Your task to perform on an android device: clear all cookies in the chrome app Image 0: 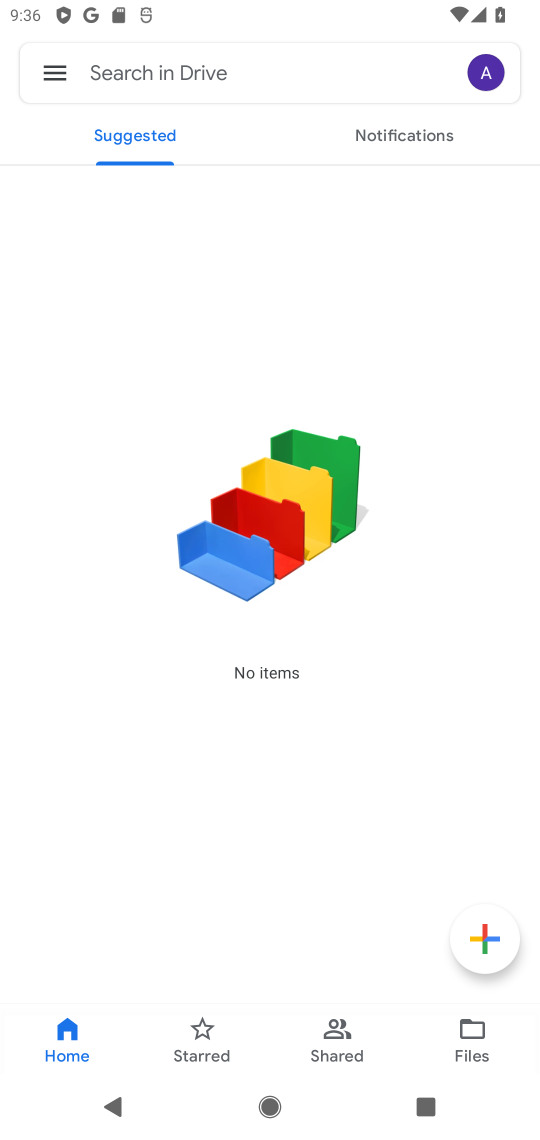
Step 0: press home button
Your task to perform on an android device: clear all cookies in the chrome app Image 1: 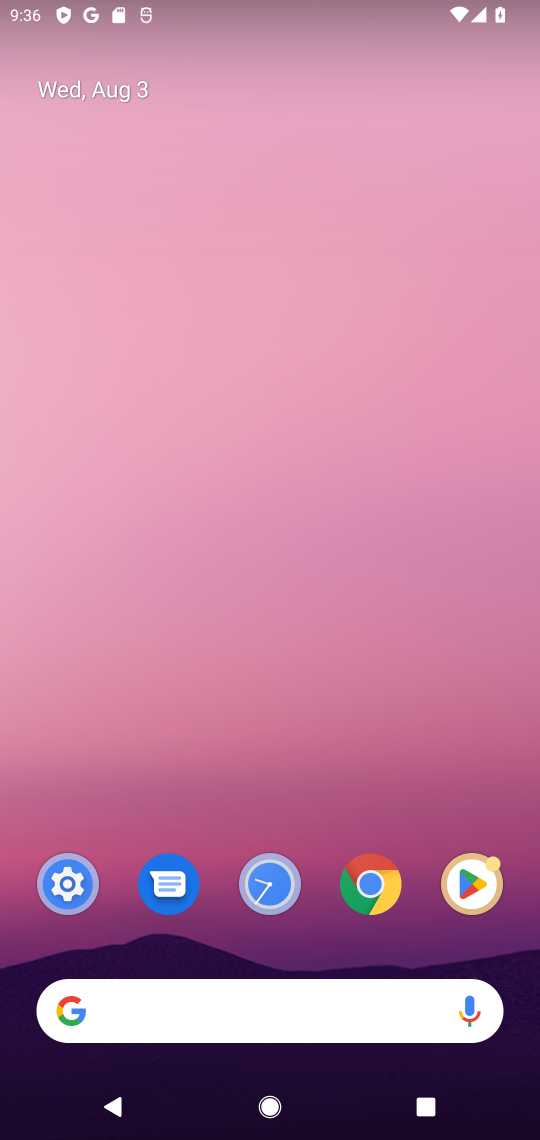
Step 1: click (372, 876)
Your task to perform on an android device: clear all cookies in the chrome app Image 2: 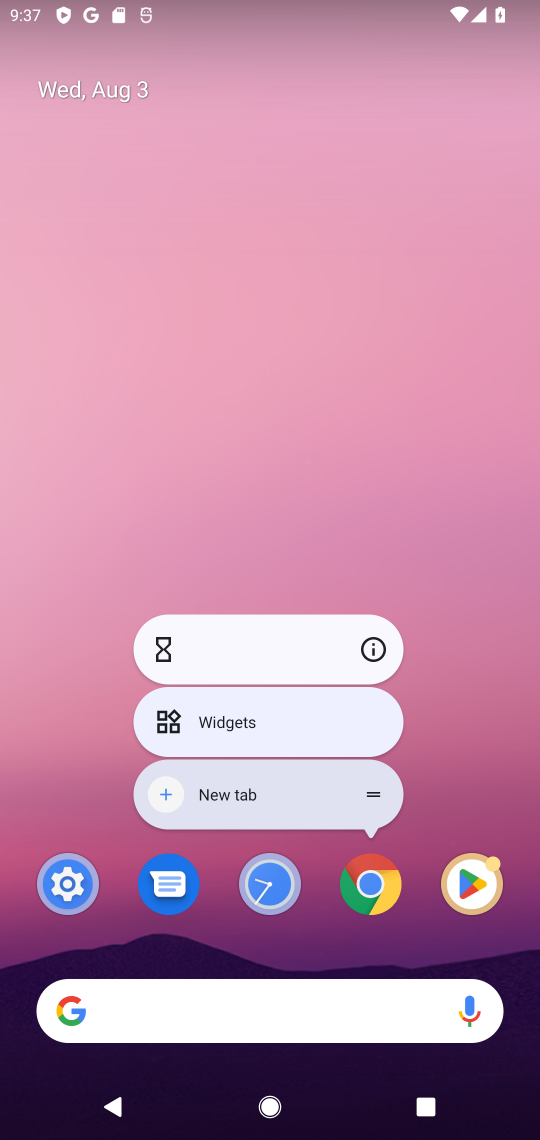
Step 2: click (361, 893)
Your task to perform on an android device: clear all cookies in the chrome app Image 3: 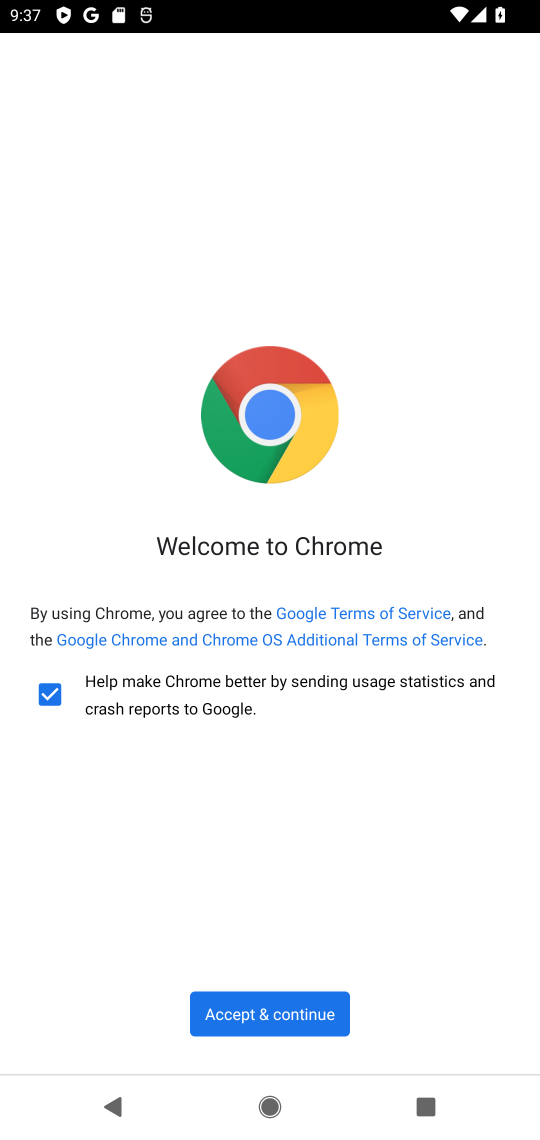
Step 3: click (264, 1021)
Your task to perform on an android device: clear all cookies in the chrome app Image 4: 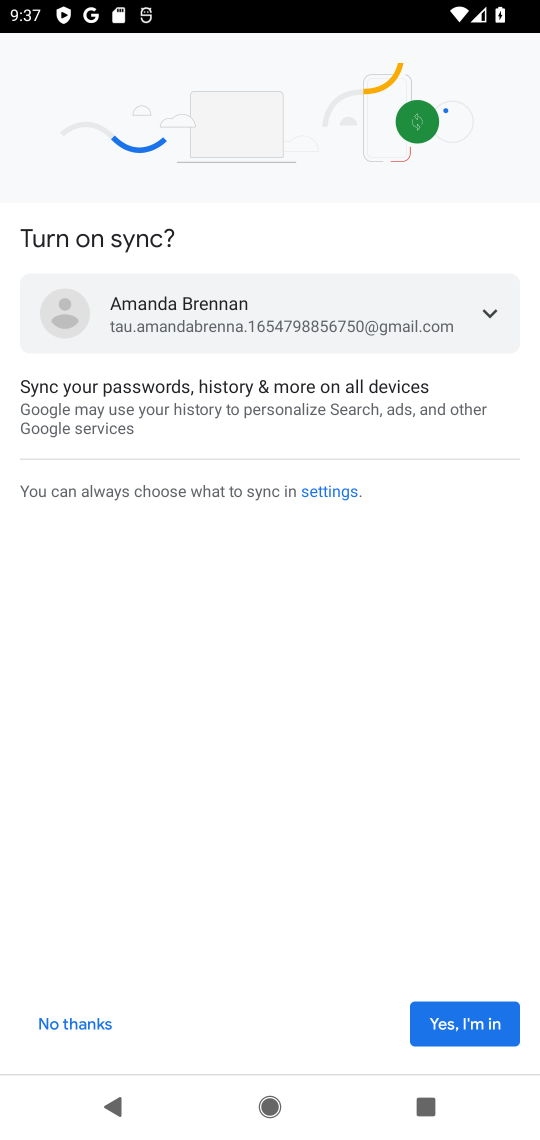
Step 4: click (471, 1035)
Your task to perform on an android device: clear all cookies in the chrome app Image 5: 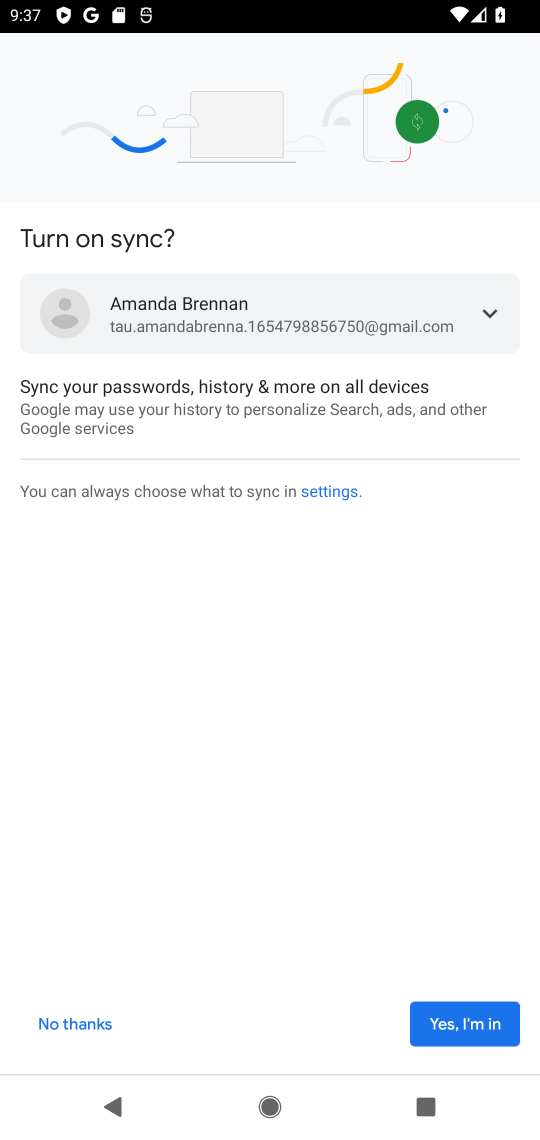
Step 5: click (470, 1032)
Your task to perform on an android device: clear all cookies in the chrome app Image 6: 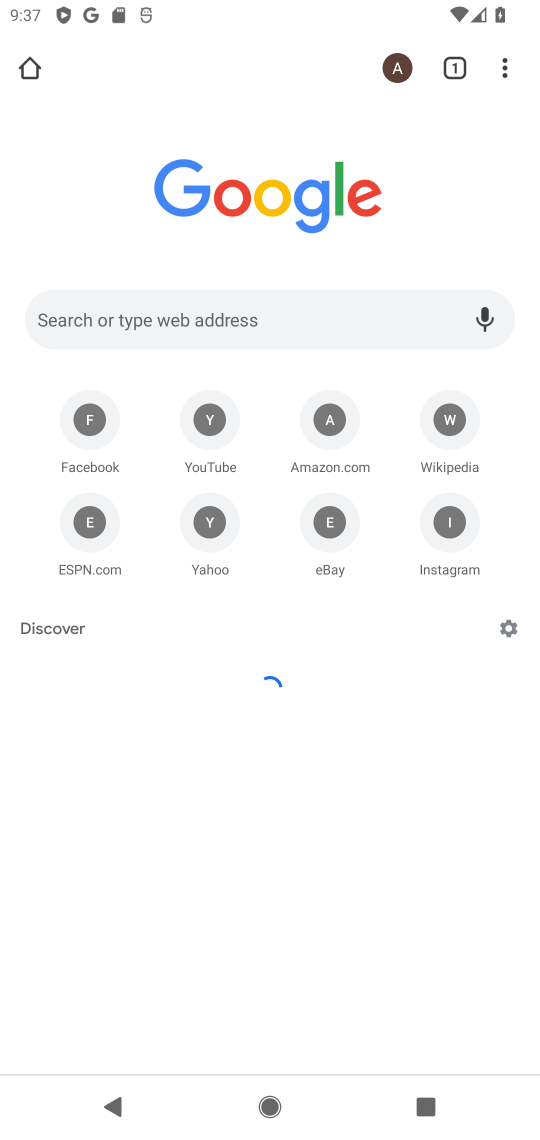
Step 6: drag from (508, 70) to (317, 600)
Your task to perform on an android device: clear all cookies in the chrome app Image 7: 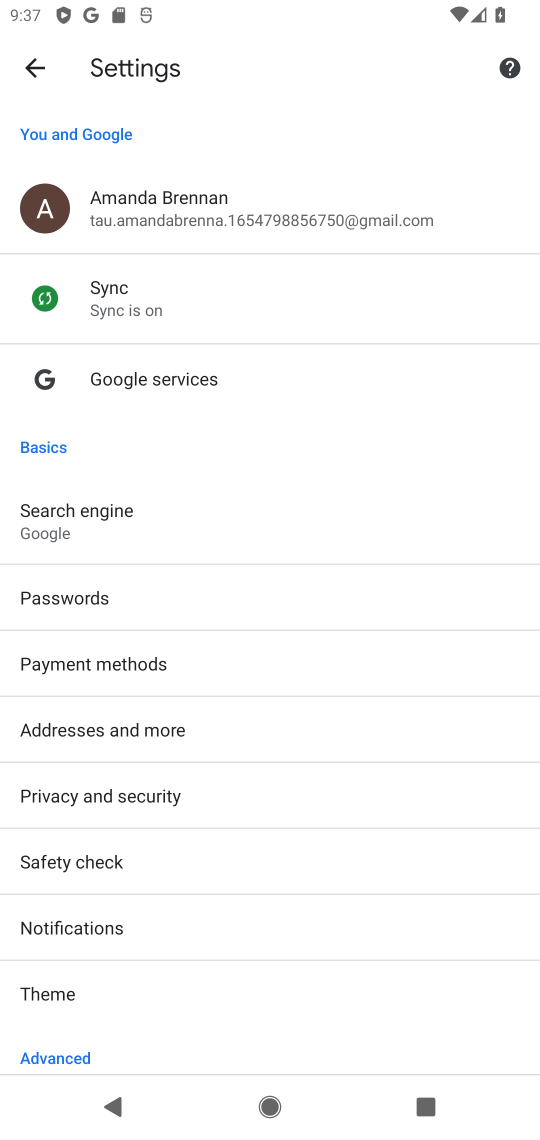
Step 7: drag from (198, 976) to (180, 387)
Your task to perform on an android device: clear all cookies in the chrome app Image 8: 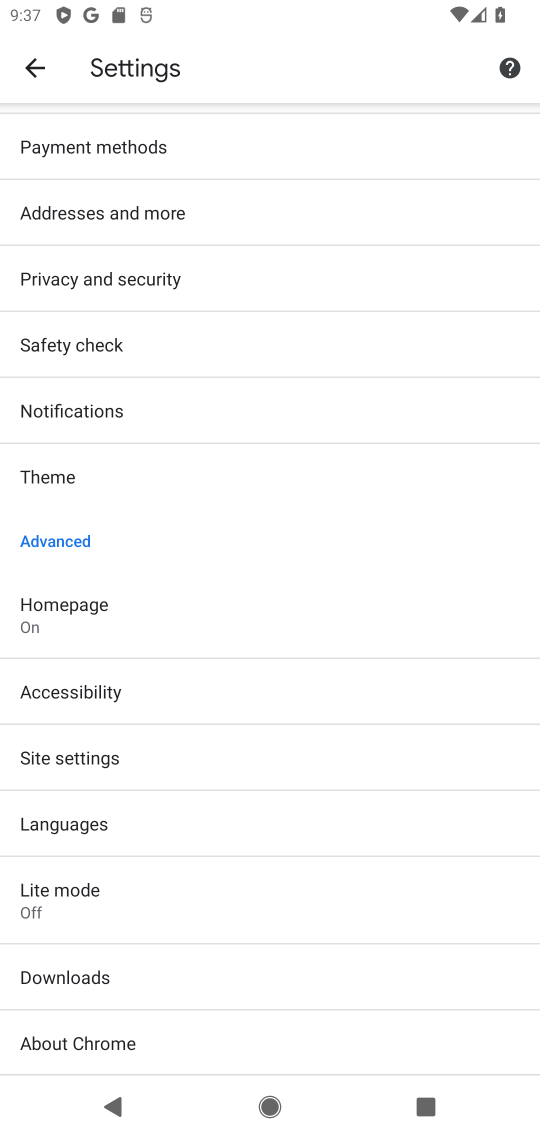
Step 8: click (64, 278)
Your task to perform on an android device: clear all cookies in the chrome app Image 9: 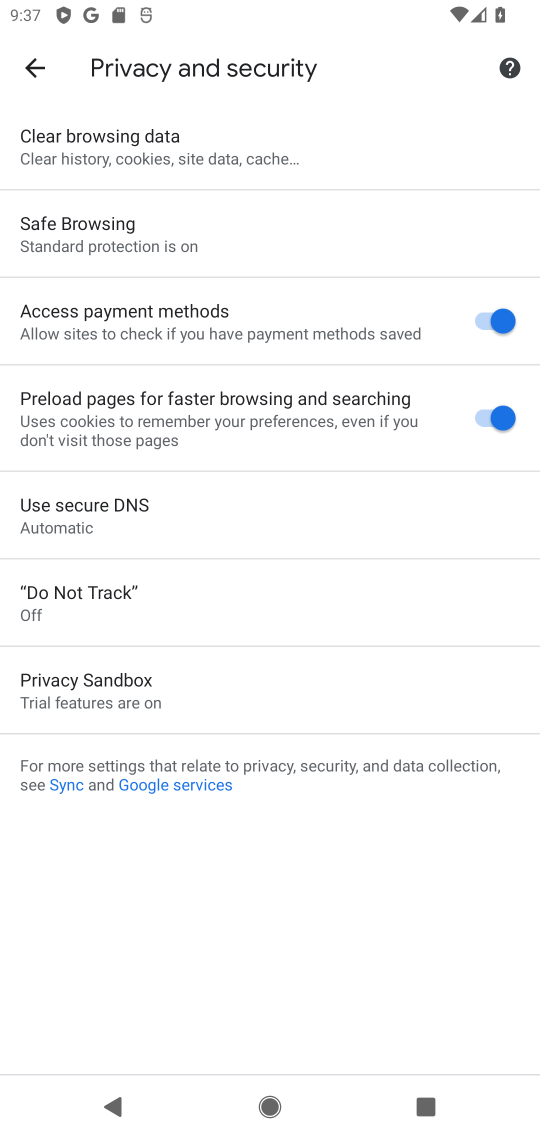
Step 9: click (100, 133)
Your task to perform on an android device: clear all cookies in the chrome app Image 10: 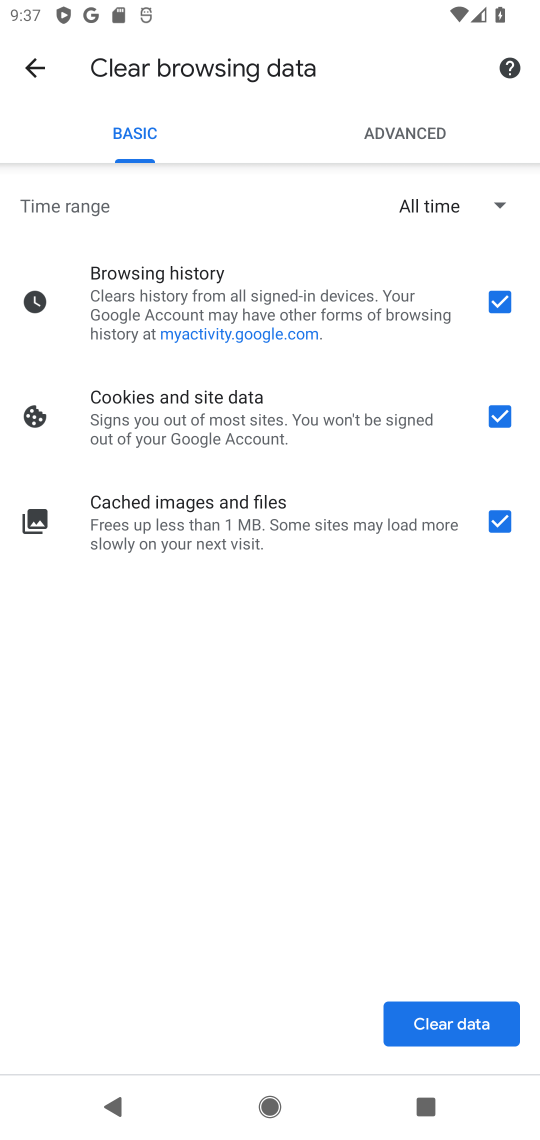
Step 10: click (504, 297)
Your task to perform on an android device: clear all cookies in the chrome app Image 11: 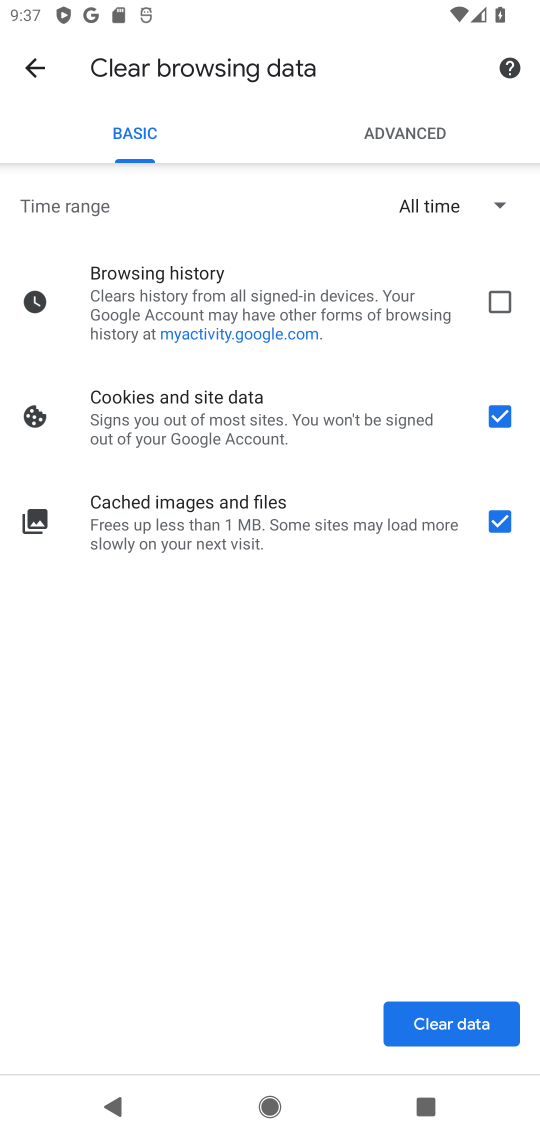
Step 11: click (498, 525)
Your task to perform on an android device: clear all cookies in the chrome app Image 12: 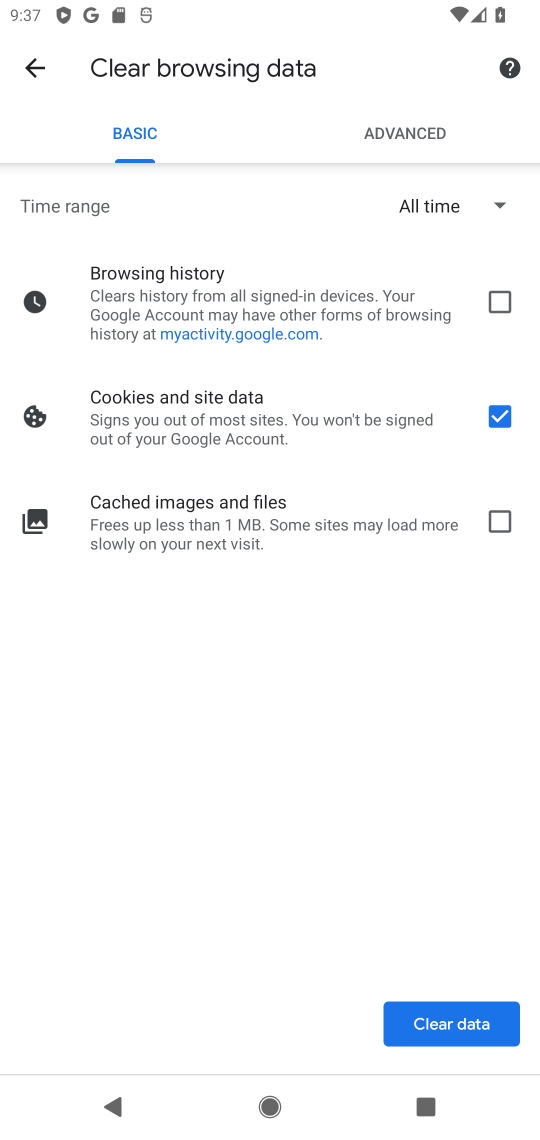
Step 12: click (438, 1021)
Your task to perform on an android device: clear all cookies in the chrome app Image 13: 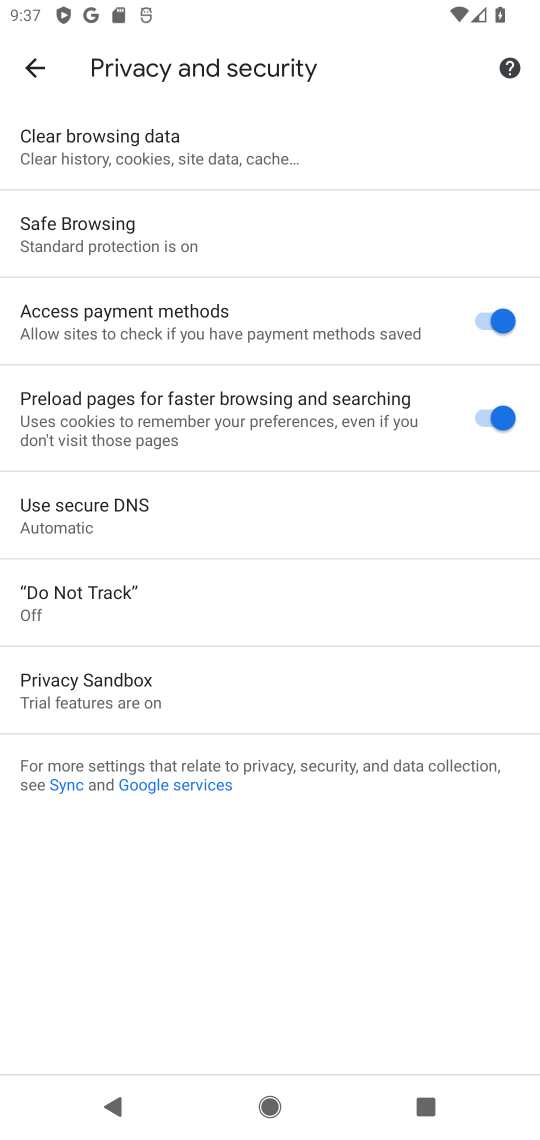
Step 13: task complete